Your task to perform on an android device: Go to ESPN.com Image 0: 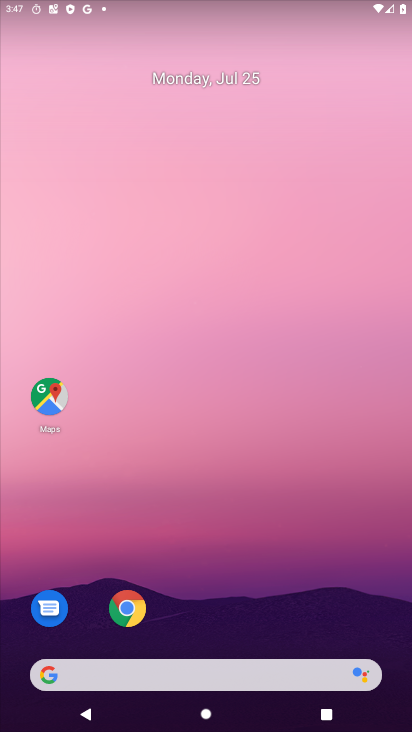
Step 0: click (127, 602)
Your task to perform on an android device: Go to ESPN.com Image 1: 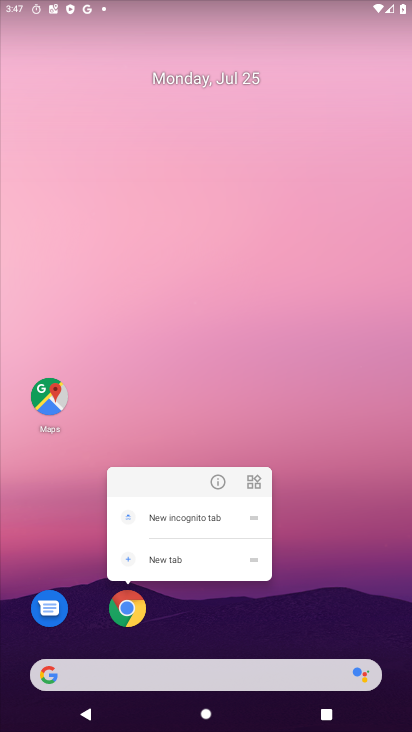
Step 1: click (127, 602)
Your task to perform on an android device: Go to ESPN.com Image 2: 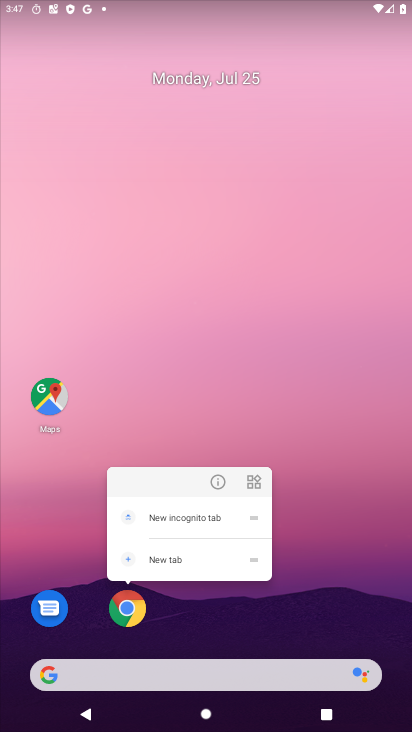
Step 2: click (127, 602)
Your task to perform on an android device: Go to ESPN.com Image 3: 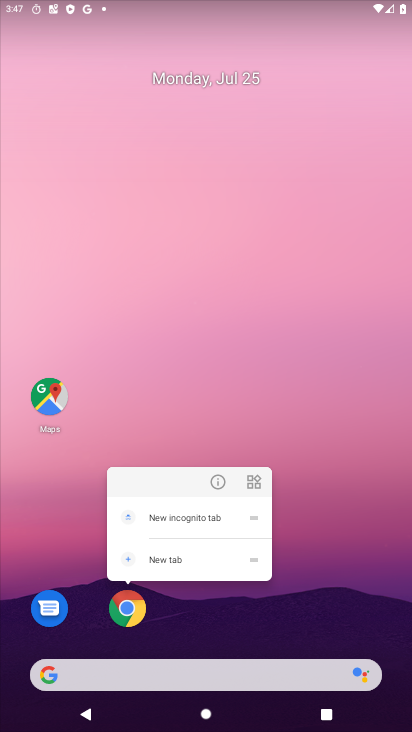
Step 3: click (127, 602)
Your task to perform on an android device: Go to ESPN.com Image 4: 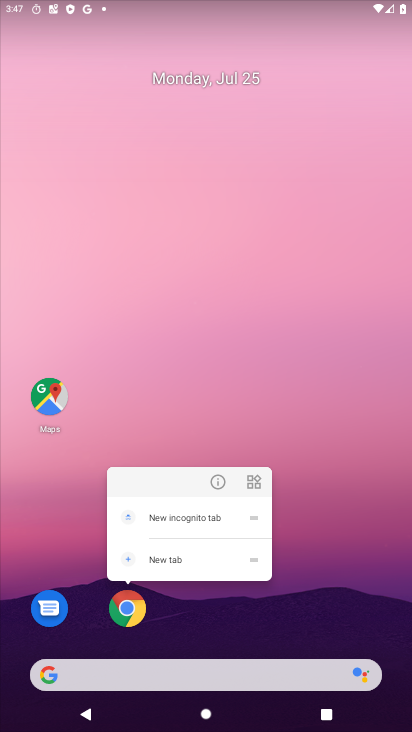
Step 4: click (208, 608)
Your task to perform on an android device: Go to ESPN.com Image 5: 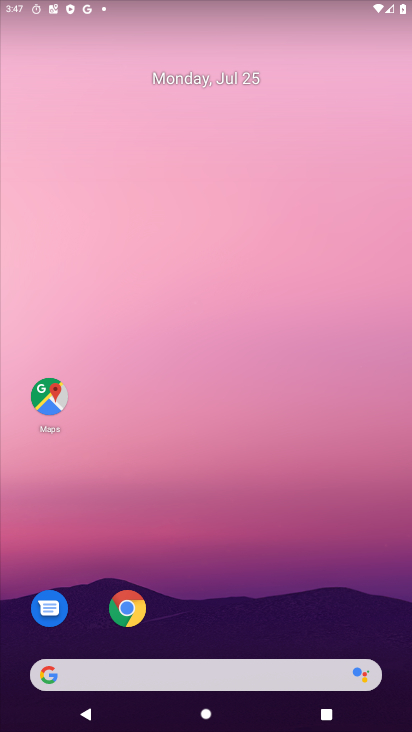
Step 5: drag from (295, 633) to (286, 35)
Your task to perform on an android device: Go to ESPN.com Image 6: 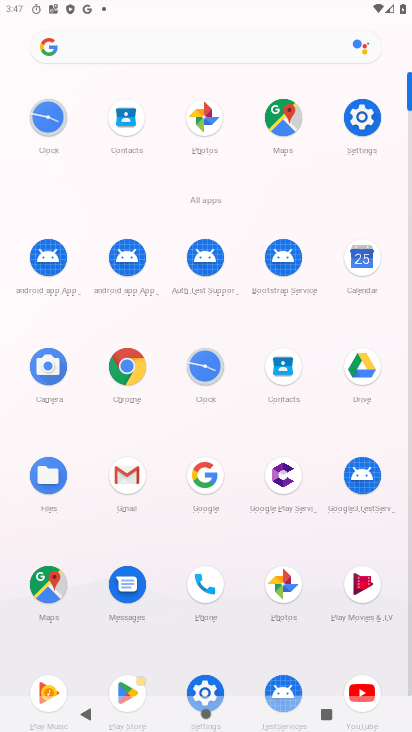
Step 6: click (121, 363)
Your task to perform on an android device: Go to ESPN.com Image 7: 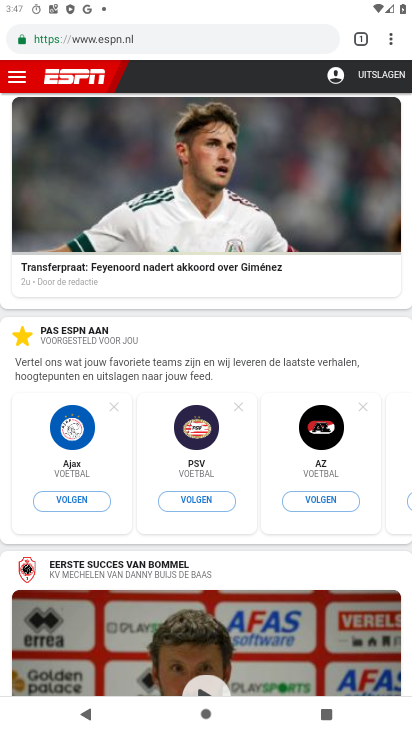
Step 7: task complete